Your task to perform on an android device: Open Reddit.com Image 0: 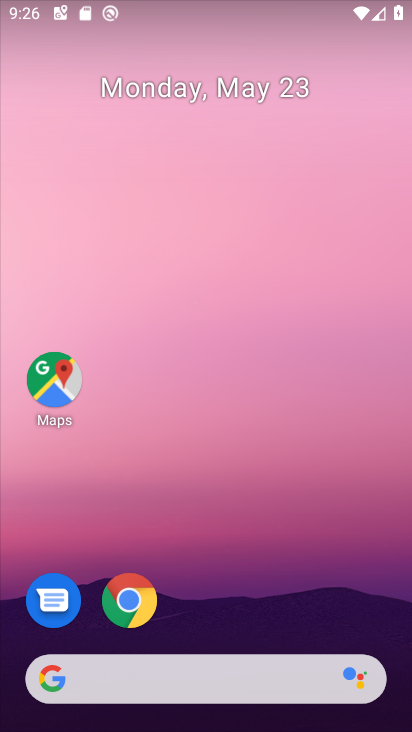
Step 0: click (133, 591)
Your task to perform on an android device: Open Reddit.com Image 1: 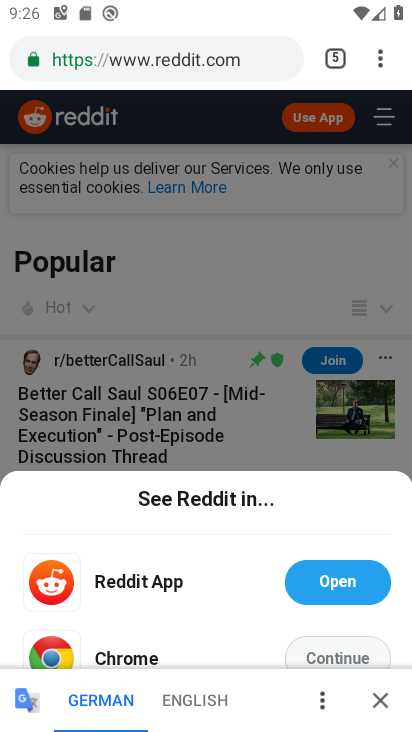
Step 1: task complete